Your task to perform on an android device: Go to wifi settings Image 0: 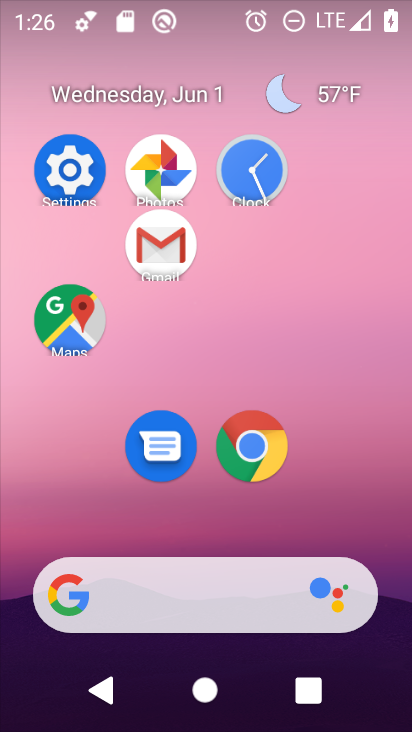
Step 0: click (54, 168)
Your task to perform on an android device: Go to wifi settings Image 1: 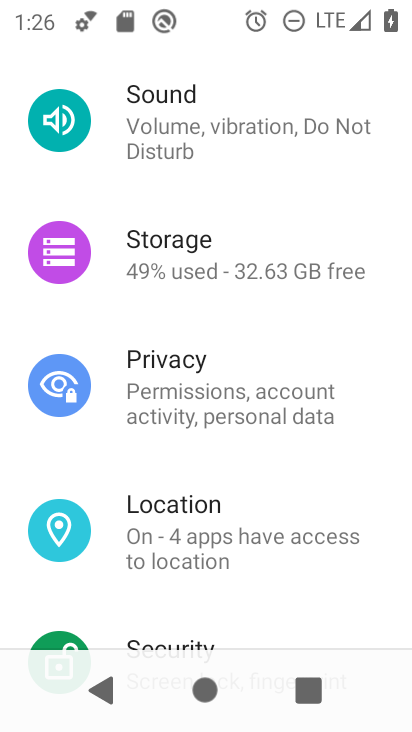
Step 1: drag from (304, 172) to (263, 543)
Your task to perform on an android device: Go to wifi settings Image 2: 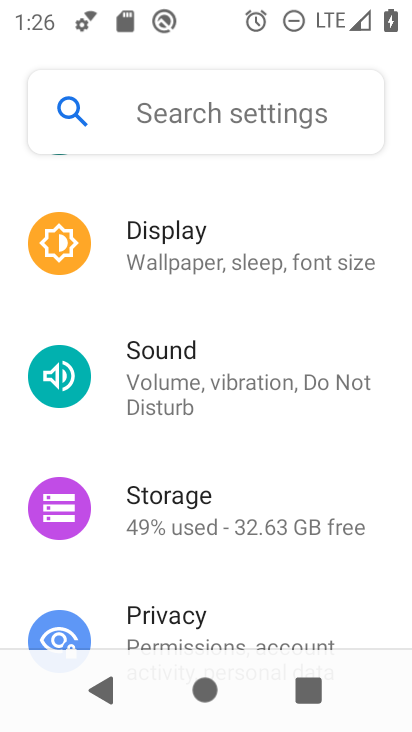
Step 2: drag from (318, 197) to (274, 584)
Your task to perform on an android device: Go to wifi settings Image 3: 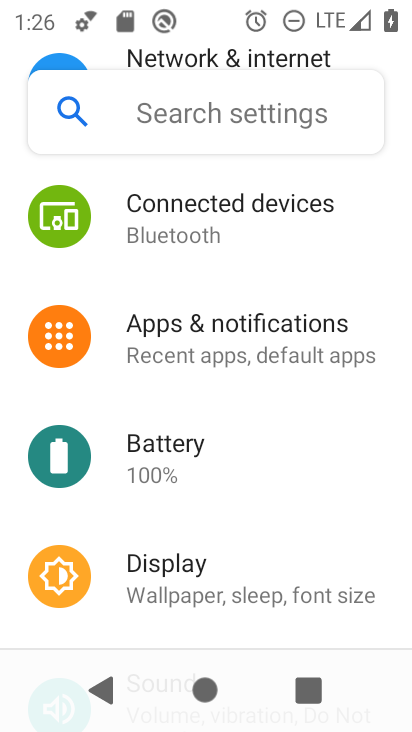
Step 3: drag from (308, 198) to (292, 581)
Your task to perform on an android device: Go to wifi settings Image 4: 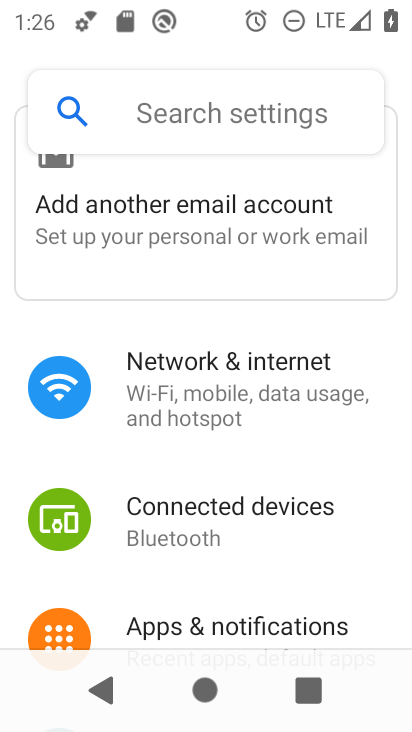
Step 4: click (102, 340)
Your task to perform on an android device: Go to wifi settings Image 5: 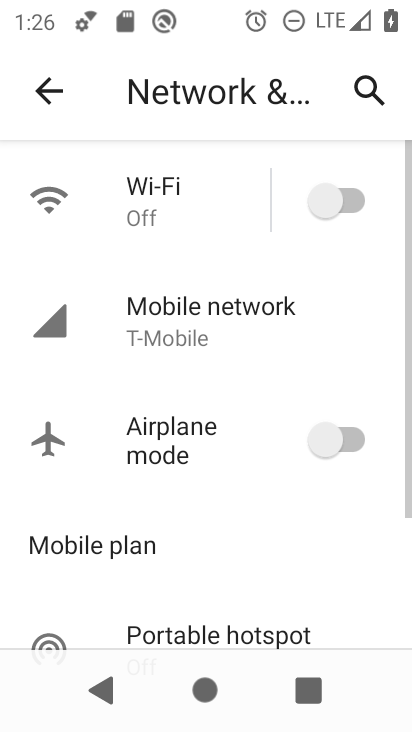
Step 5: click (165, 178)
Your task to perform on an android device: Go to wifi settings Image 6: 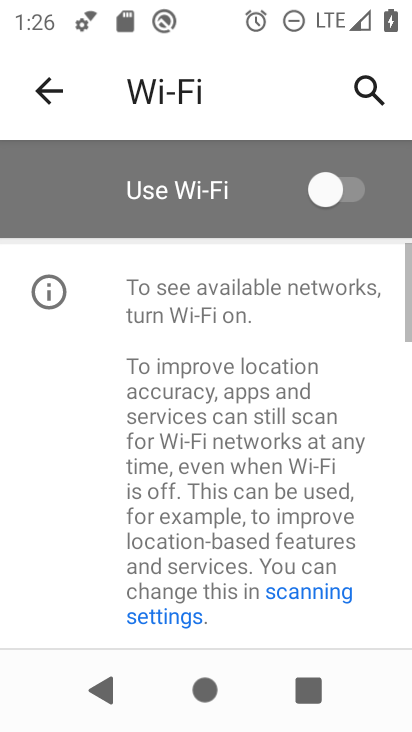
Step 6: click (352, 193)
Your task to perform on an android device: Go to wifi settings Image 7: 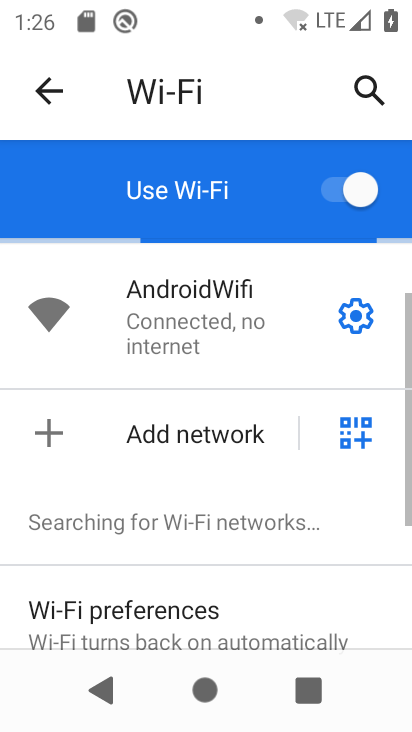
Step 7: click (369, 306)
Your task to perform on an android device: Go to wifi settings Image 8: 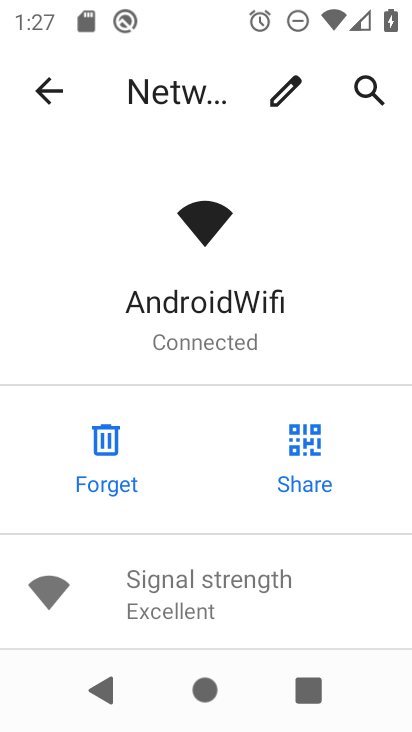
Step 8: task complete